Your task to perform on an android device: create a new album in the google photos Image 0: 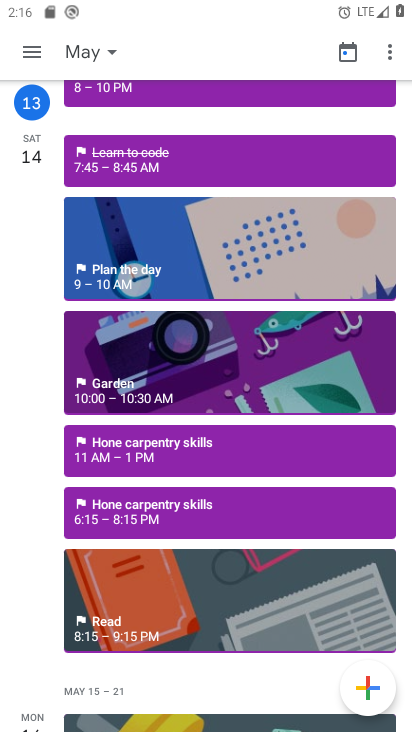
Step 0: press home button
Your task to perform on an android device: create a new album in the google photos Image 1: 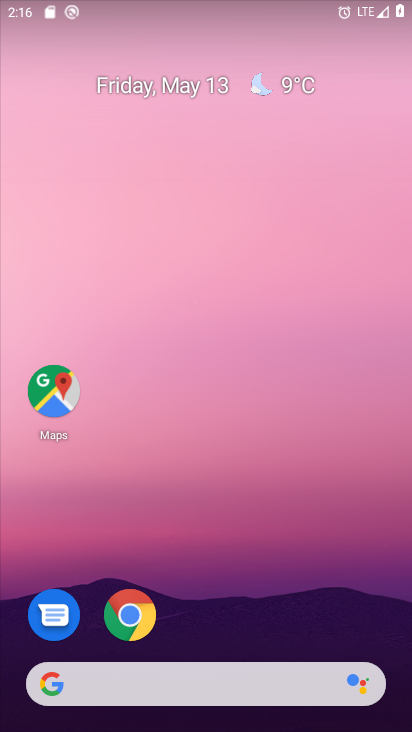
Step 1: drag from (211, 587) to (313, 84)
Your task to perform on an android device: create a new album in the google photos Image 2: 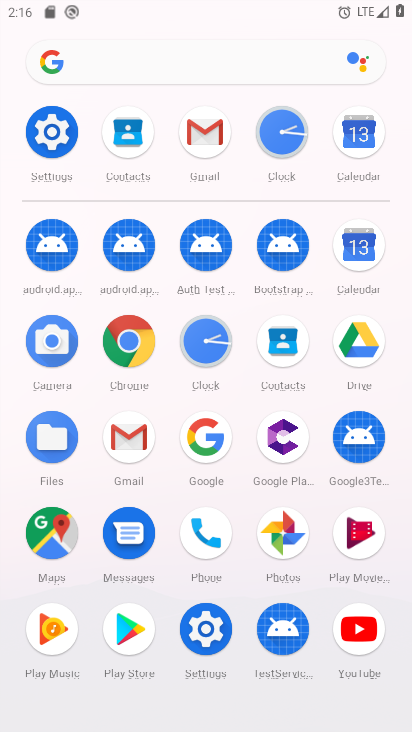
Step 2: click (275, 535)
Your task to perform on an android device: create a new album in the google photos Image 3: 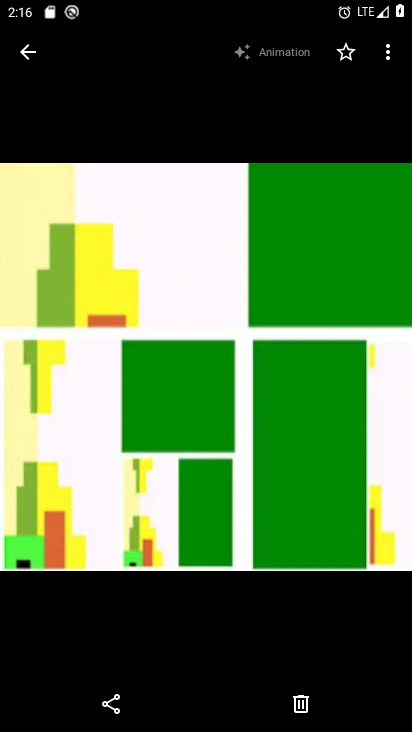
Step 3: click (34, 53)
Your task to perform on an android device: create a new album in the google photos Image 4: 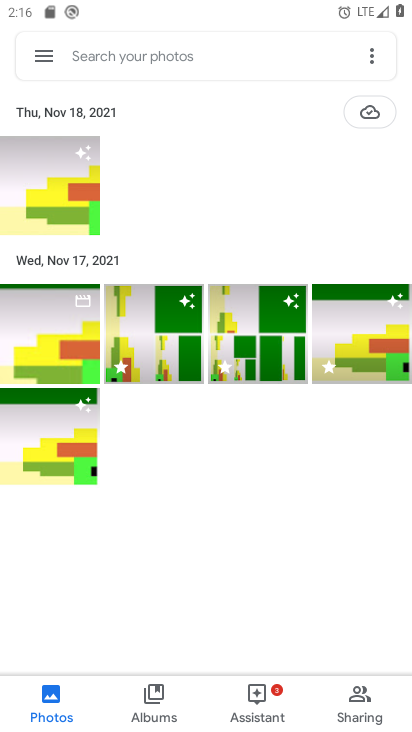
Step 4: click (139, 695)
Your task to perform on an android device: create a new album in the google photos Image 5: 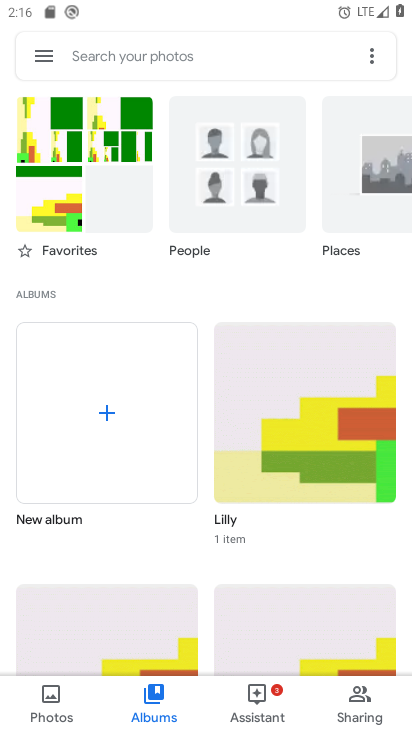
Step 5: click (103, 414)
Your task to perform on an android device: create a new album in the google photos Image 6: 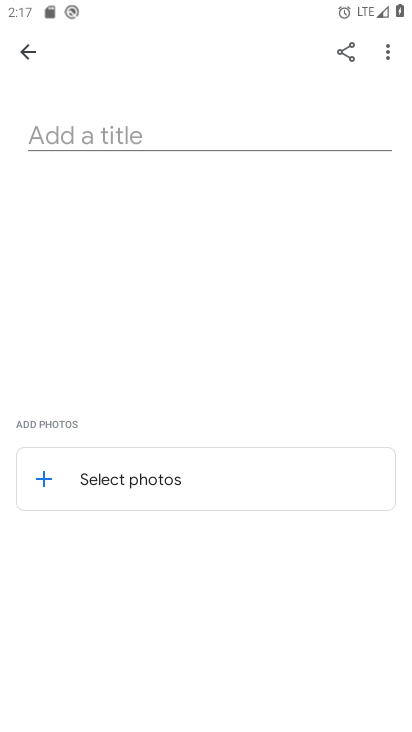
Step 6: click (217, 133)
Your task to perform on an android device: create a new album in the google photos Image 7: 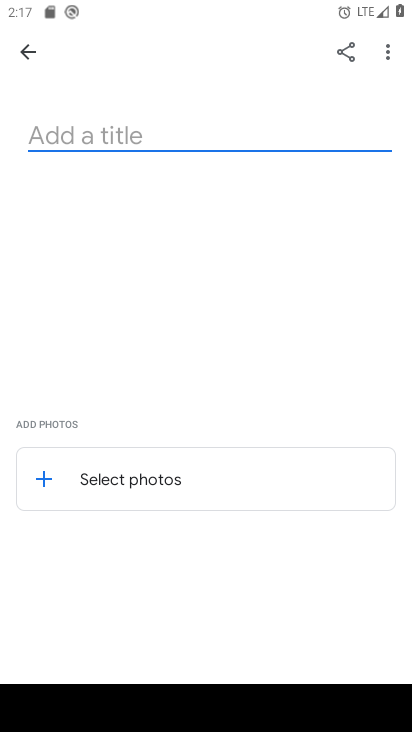
Step 7: type "Jambudweepe Bharatwarshe"
Your task to perform on an android device: create a new album in the google photos Image 8: 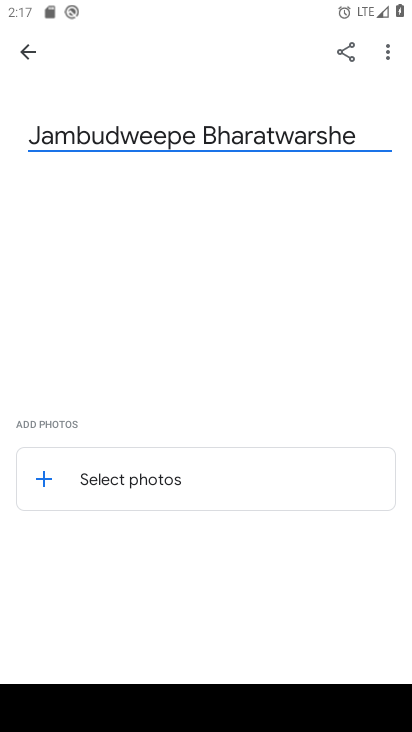
Step 8: click (102, 481)
Your task to perform on an android device: create a new album in the google photos Image 9: 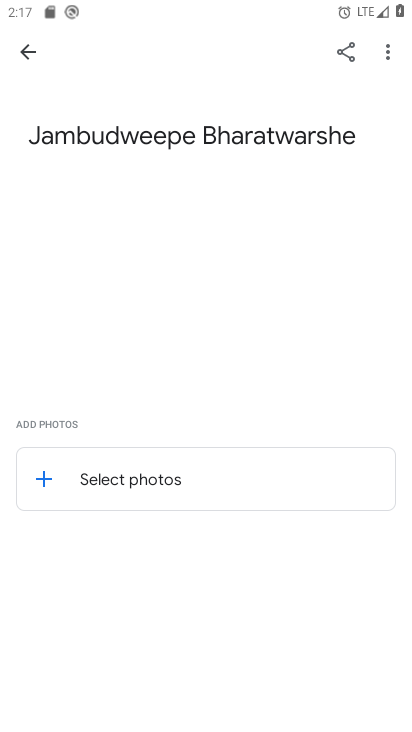
Step 9: click (45, 469)
Your task to perform on an android device: create a new album in the google photos Image 10: 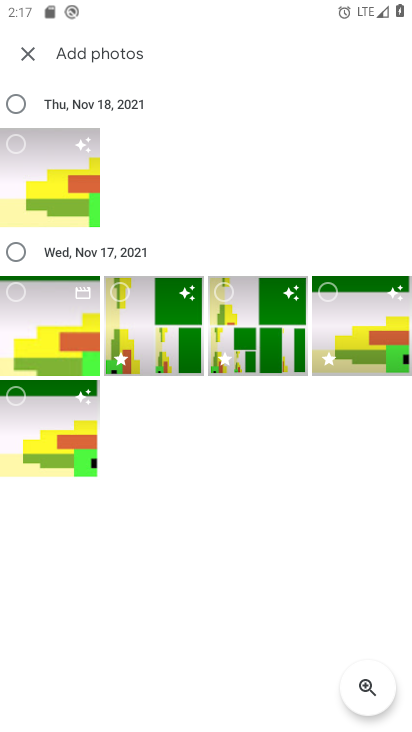
Step 10: click (19, 287)
Your task to perform on an android device: create a new album in the google photos Image 11: 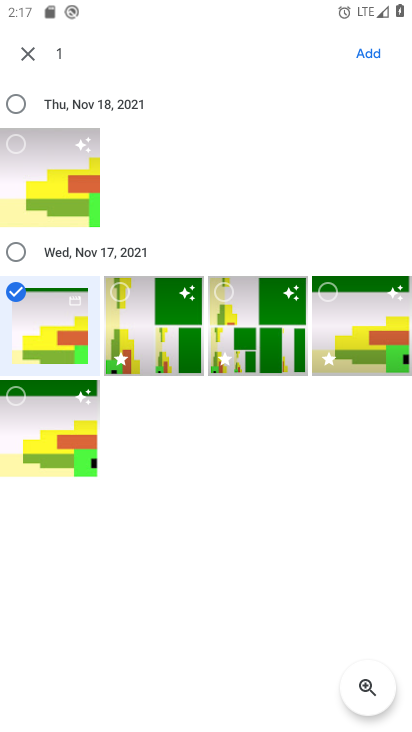
Step 11: click (356, 51)
Your task to perform on an android device: create a new album in the google photos Image 12: 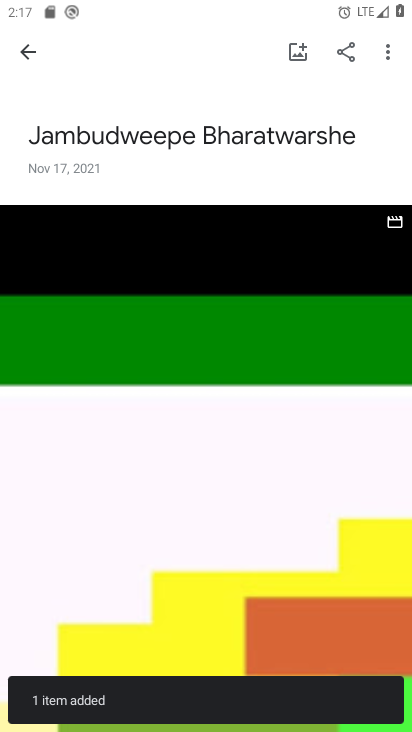
Step 12: task complete